Your task to perform on an android device: turn on the 12-hour format for clock Image 0: 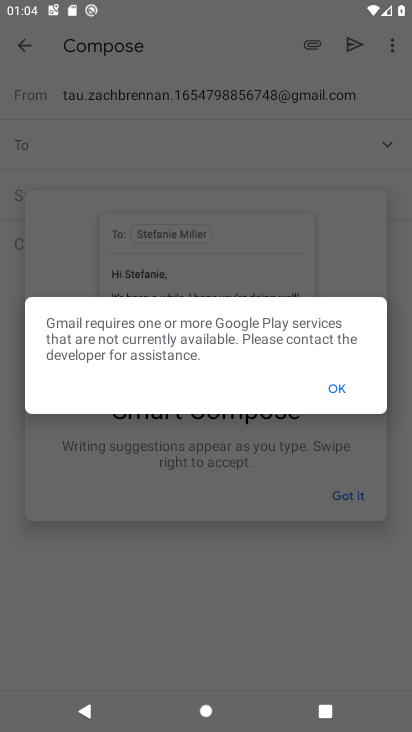
Step 0: press home button
Your task to perform on an android device: turn on the 12-hour format for clock Image 1: 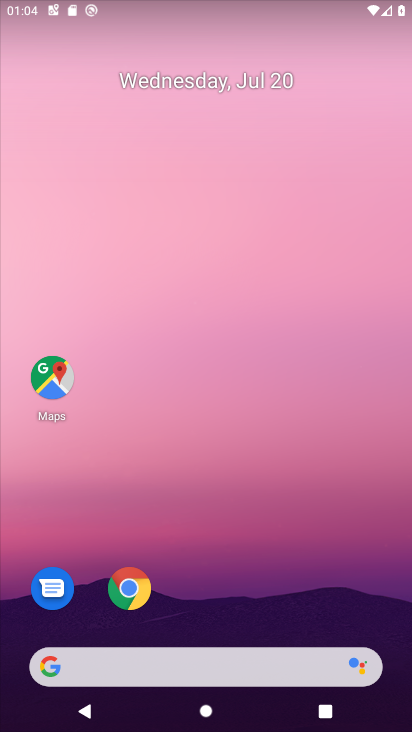
Step 1: drag from (261, 450) to (261, 267)
Your task to perform on an android device: turn on the 12-hour format for clock Image 2: 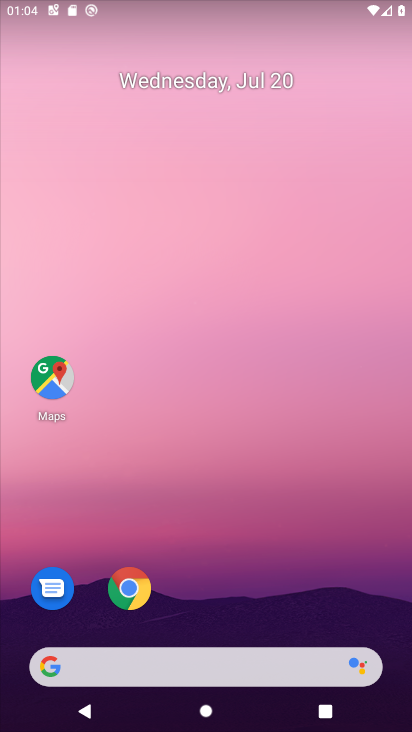
Step 2: drag from (217, 646) to (256, 192)
Your task to perform on an android device: turn on the 12-hour format for clock Image 3: 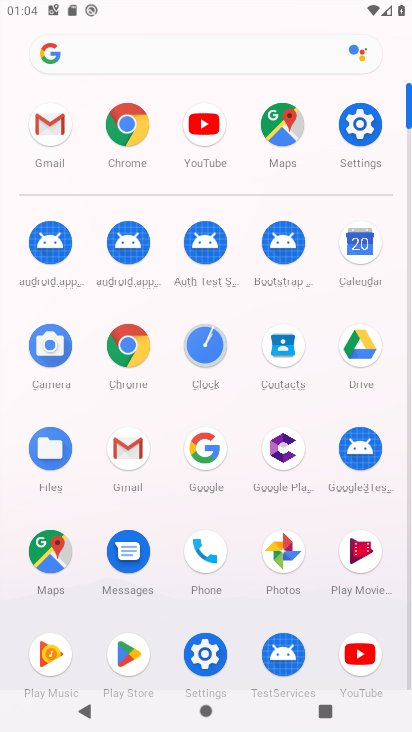
Step 3: click (209, 349)
Your task to perform on an android device: turn on the 12-hour format for clock Image 4: 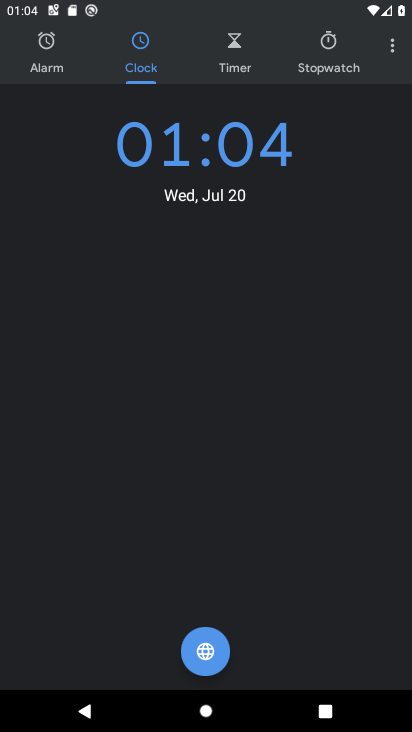
Step 4: click (395, 43)
Your task to perform on an android device: turn on the 12-hour format for clock Image 5: 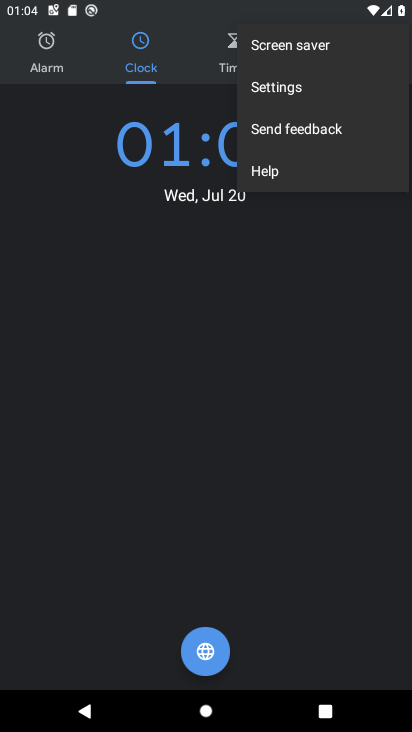
Step 5: click (284, 95)
Your task to perform on an android device: turn on the 12-hour format for clock Image 6: 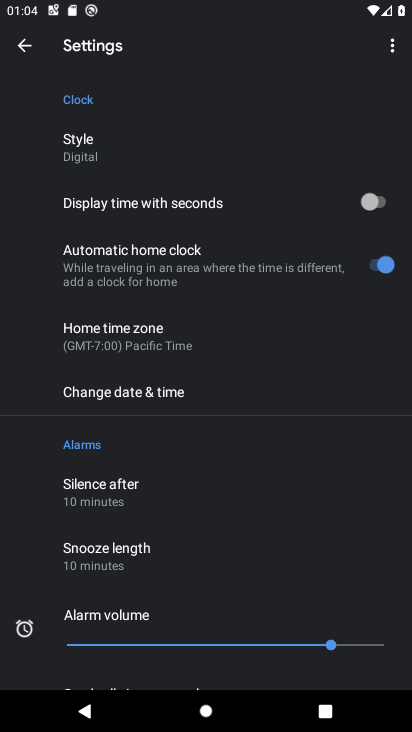
Step 6: click (221, 383)
Your task to perform on an android device: turn on the 12-hour format for clock Image 7: 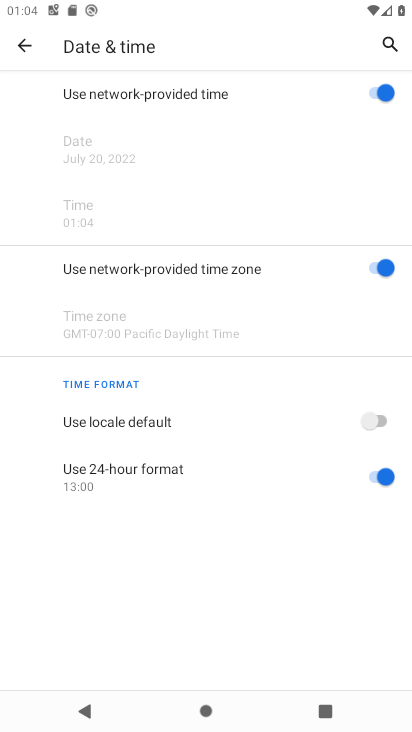
Step 7: task complete